Your task to perform on an android device: Go to Google Image 0: 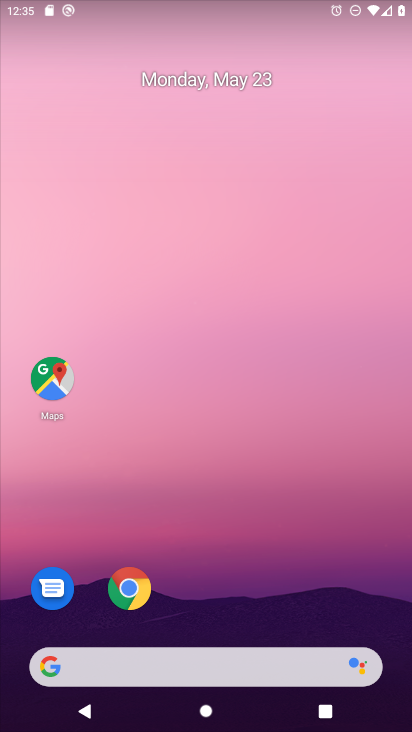
Step 0: drag from (272, 696) to (204, 111)
Your task to perform on an android device: Go to Google Image 1: 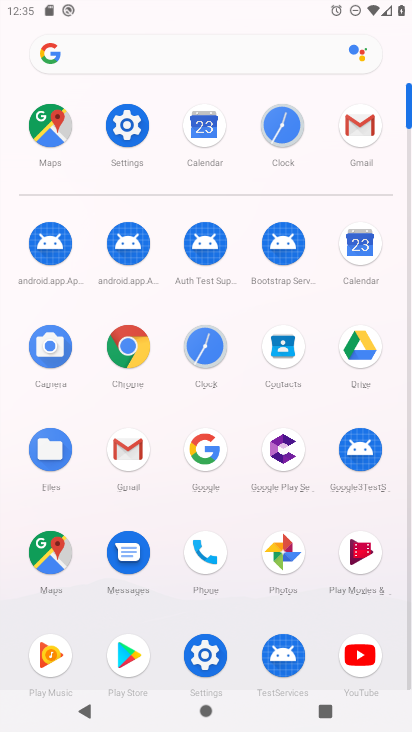
Step 1: click (53, 54)
Your task to perform on an android device: Go to Google Image 2: 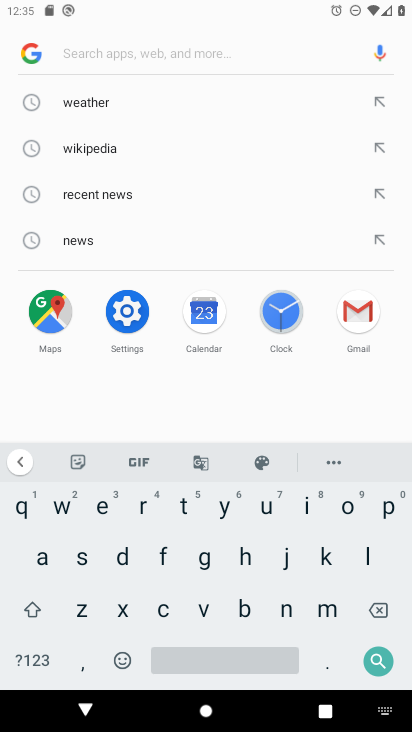
Step 2: click (33, 60)
Your task to perform on an android device: Go to Google Image 3: 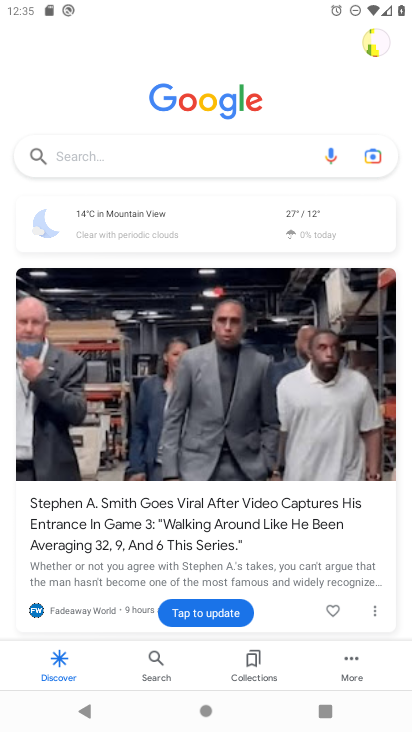
Step 3: task complete